Your task to perform on an android device: Open location settings Image 0: 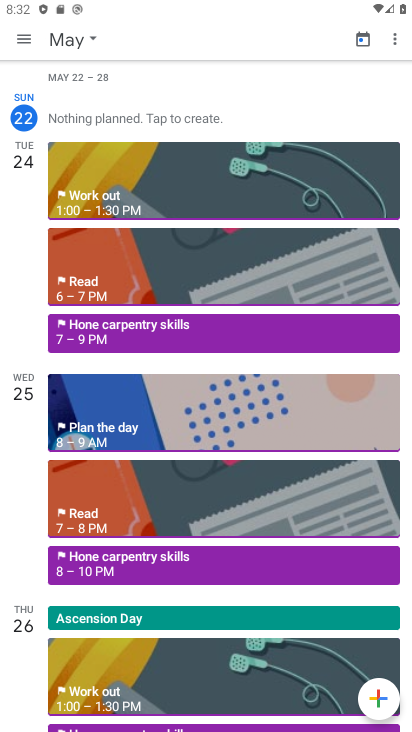
Step 0: press home button
Your task to perform on an android device: Open location settings Image 1: 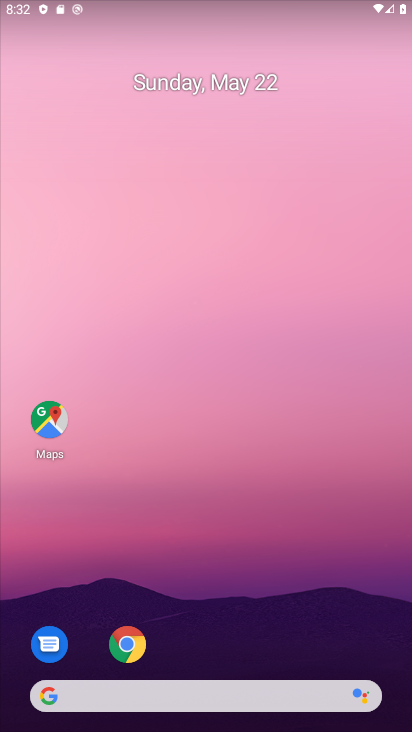
Step 1: drag from (190, 702) to (273, 74)
Your task to perform on an android device: Open location settings Image 2: 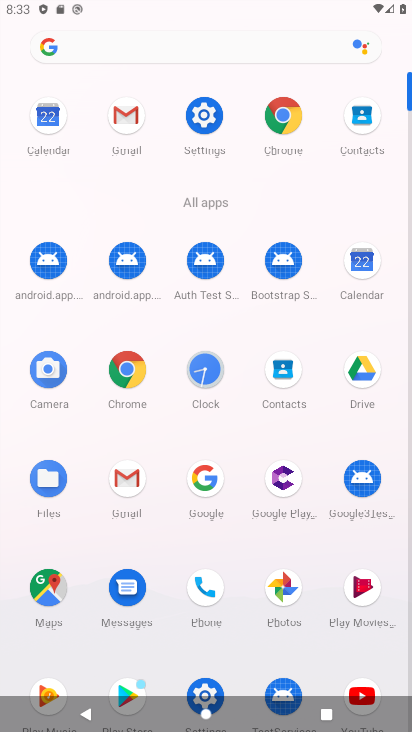
Step 2: click (193, 119)
Your task to perform on an android device: Open location settings Image 3: 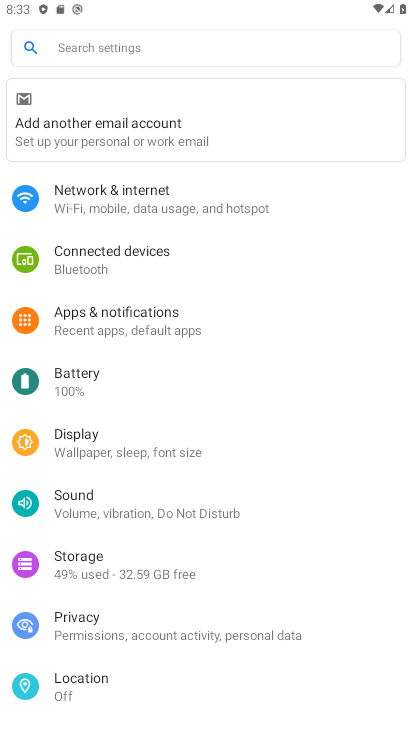
Step 3: click (99, 689)
Your task to perform on an android device: Open location settings Image 4: 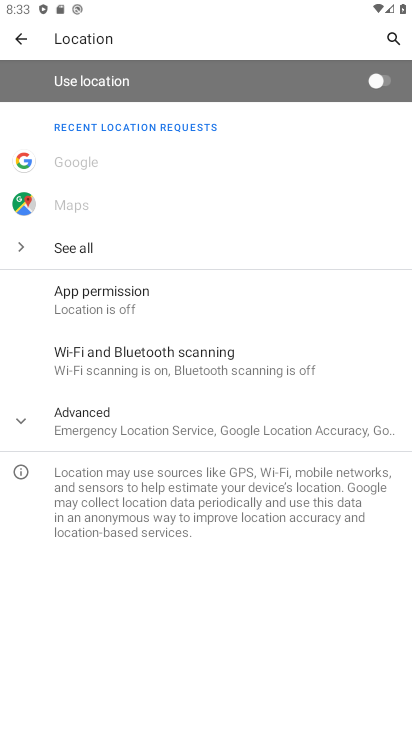
Step 4: task complete